Your task to perform on an android device: Open settings Image 0: 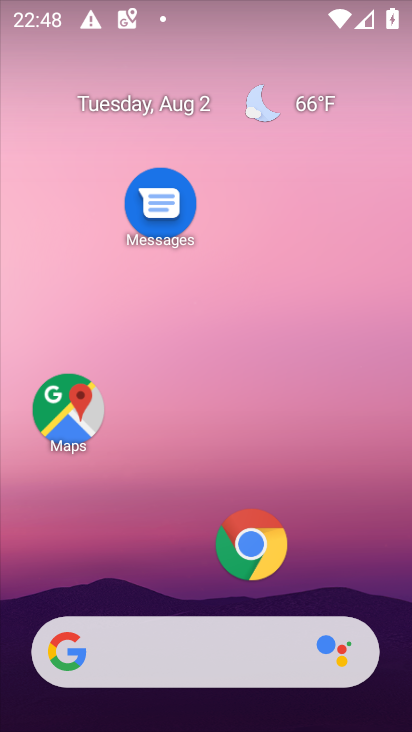
Step 0: drag from (168, 575) to (145, 193)
Your task to perform on an android device: Open settings Image 1: 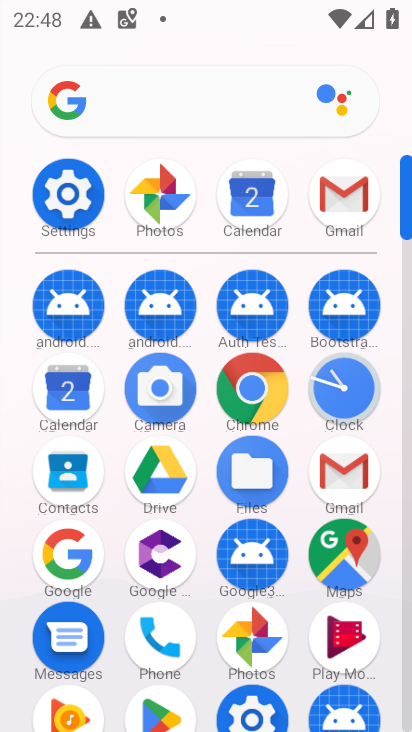
Step 1: click (94, 191)
Your task to perform on an android device: Open settings Image 2: 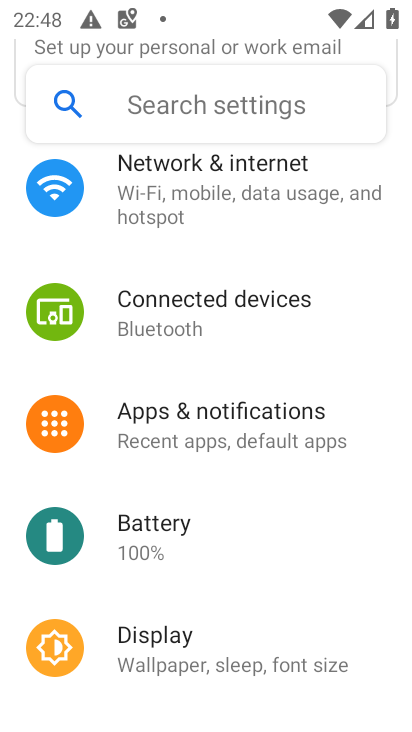
Step 2: task complete